Your task to perform on an android device: turn on priority inbox in the gmail app Image 0: 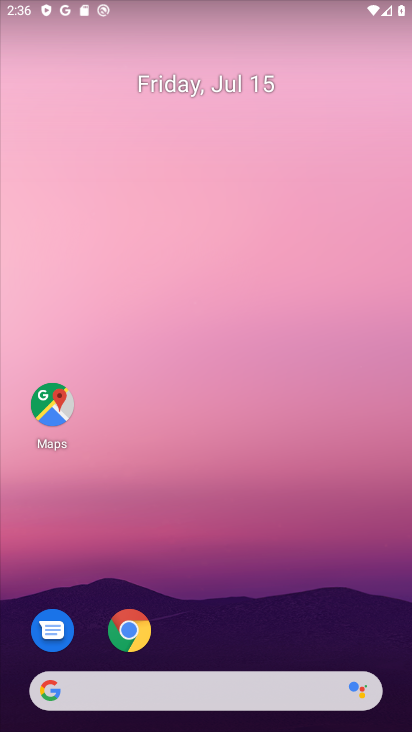
Step 0: drag from (239, 690) to (179, 165)
Your task to perform on an android device: turn on priority inbox in the gmail app Image 1: 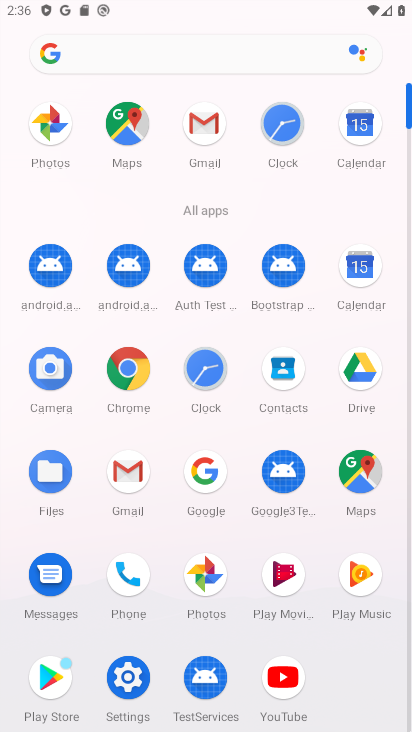
Step 1: click (196, 125)
Your task to perform on an android device: turn on priority inbox in the gmail app Image 2: 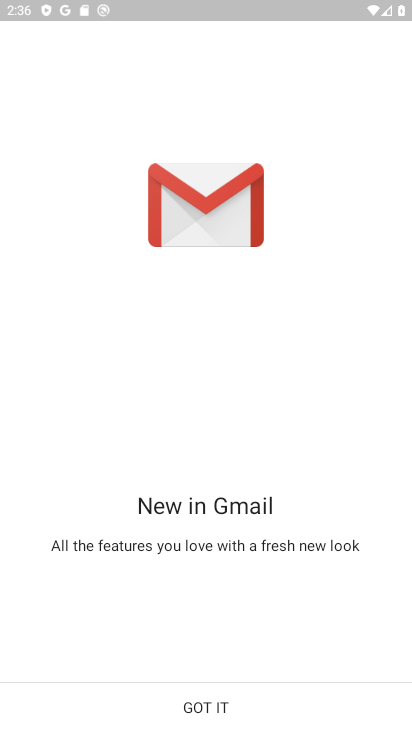
Step 2: click (209, 719)
Your task to perform on an android device: turn on priority inbox in the gmail app Image 3: 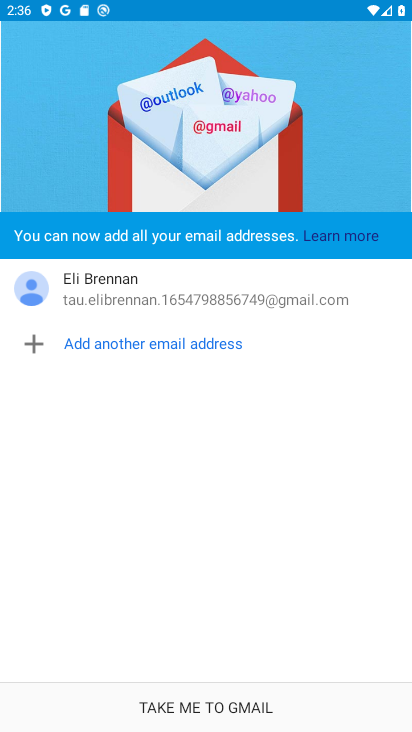
Step 3: click (209, 719)
Your task to perform on an android device: turn on priority inbox in the gmail app Image 4: 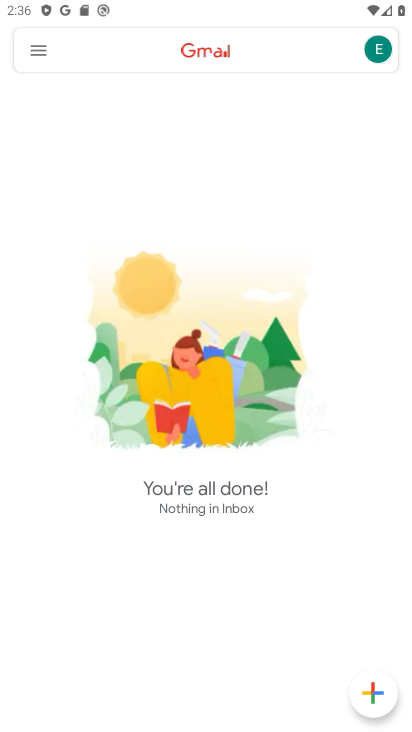
Step 4: click (39, 62)
Your task to perform on an android device: turn on priority inbox in the gmail app Image 5: 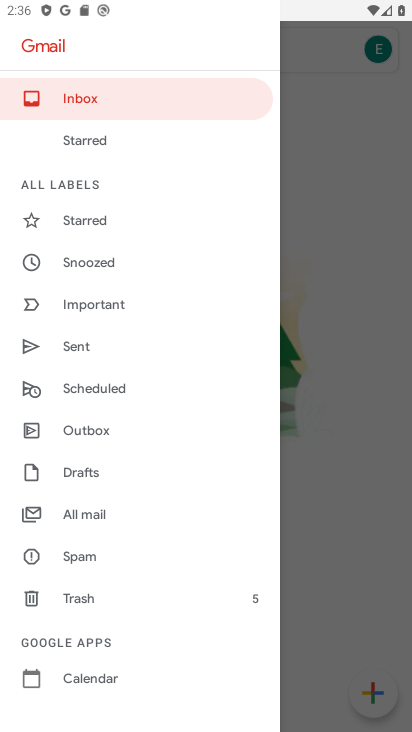
Step 5: drag from (105, 648) to (87, 424)
Your task to perform on an android device: turn on priority inbox in the gmail app Image 6: 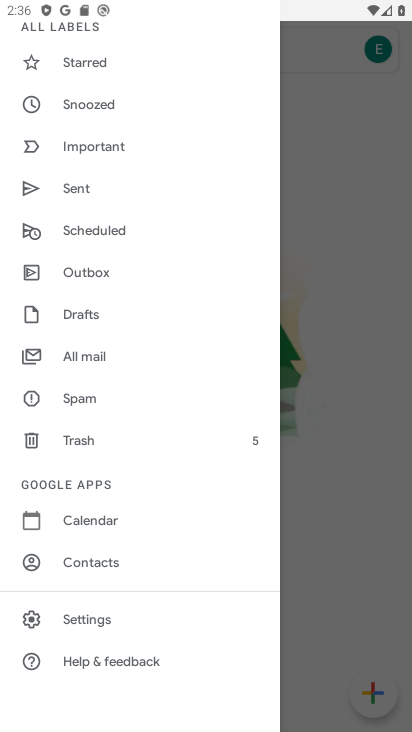
Step 6: click (79, 615)
Your task to perform on an android device: turn on priority inbox in the gmail app Image 7: 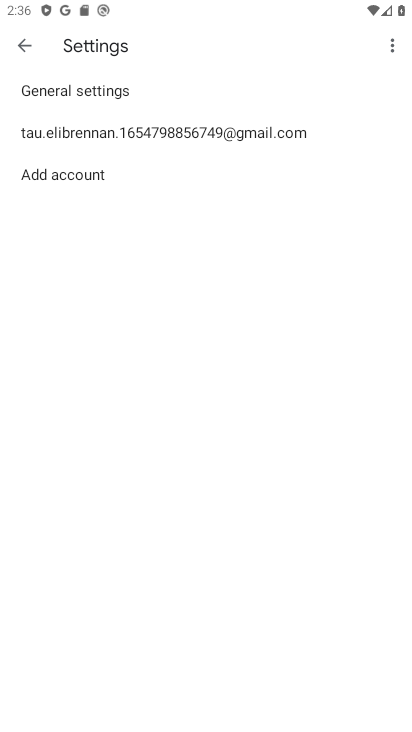
Step 7: click (97, 138)
Your task to perform on an android device: turn on priority inbox in the gmail app Image 8: 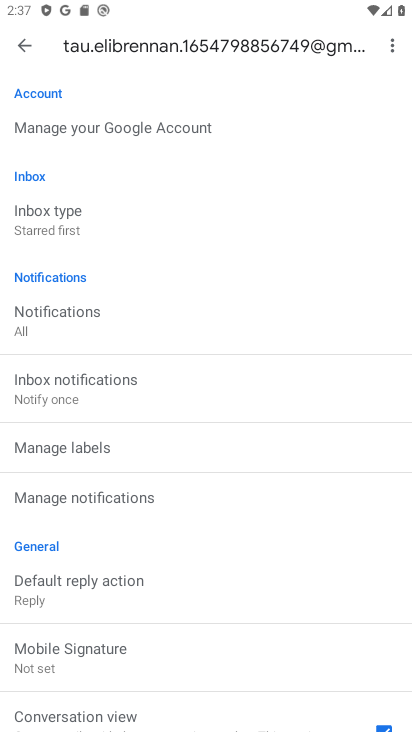
Step 8: click (49, 227)
Your task to perform on an android device: turn on priority inbox in the gmail app Image 9: 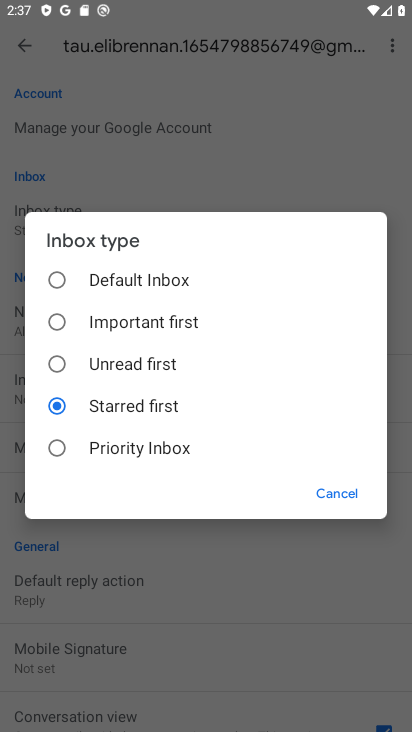
Step 9: click (117, 447)
Your task to perform on an android device: turn on priority inbox in the gmail app Image 10: 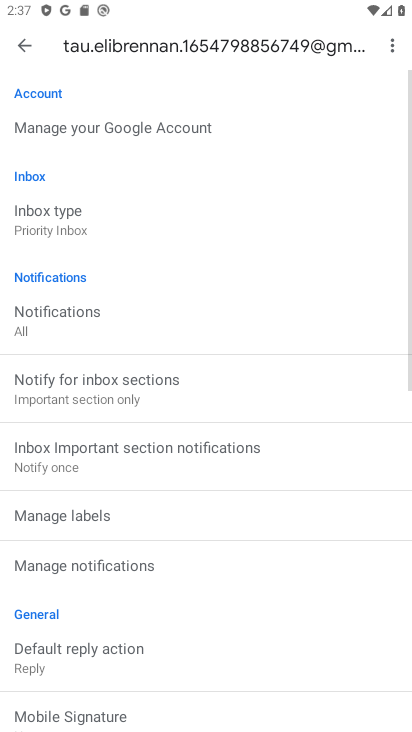
Step 10: task complete